Your task to perform on an android device: Show me popular videos on Youtube Image 0: 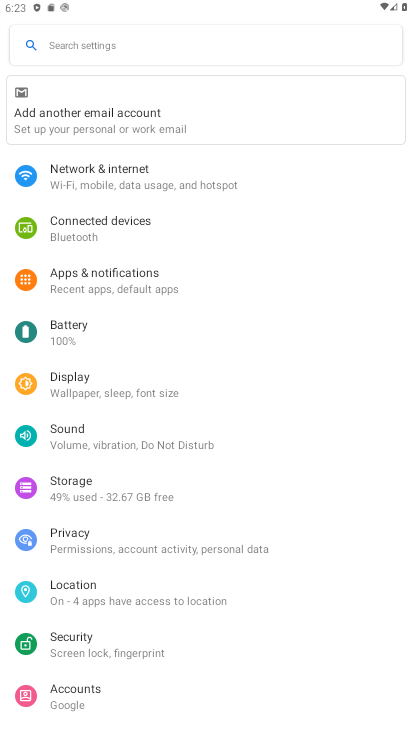
Step 0: press home button
Your task to perform on an android device: Show me popular videos on Youtube Image 1: 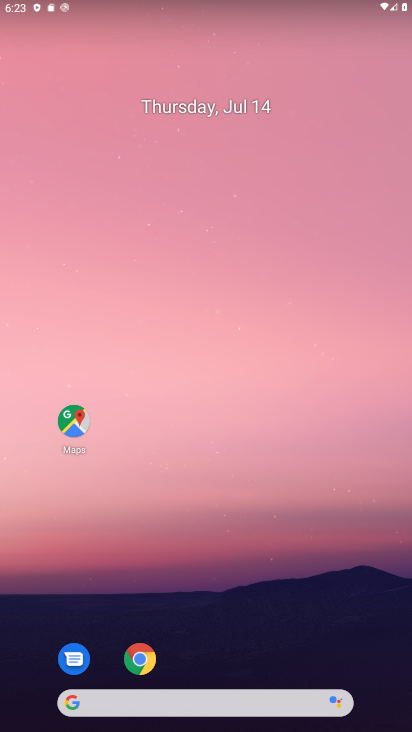
Step 1: drag from (153, 606) to (298, 2)
Your task to perform on an android device: Show me popular videos on Youtube Image 2: 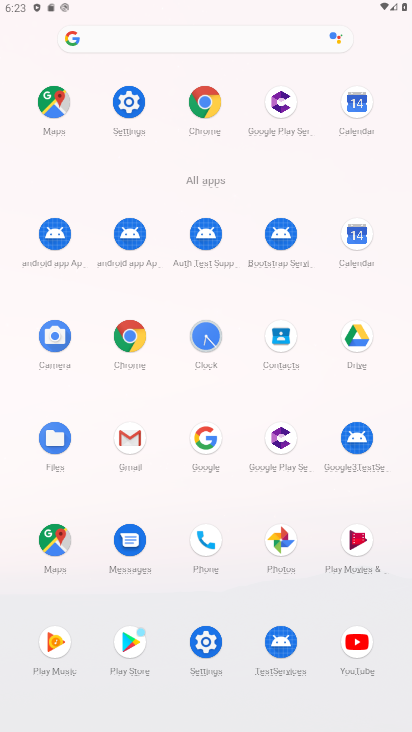
Step 2: click (362, 639)
Your task to perform on an android device: Show me popular videos on Youtube Image 3: 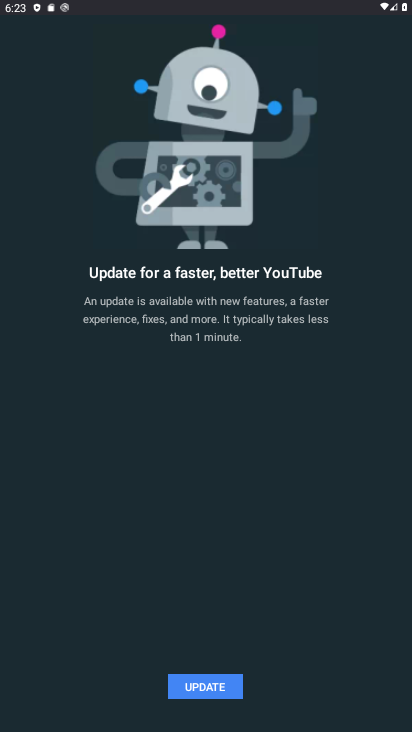
Step 3: click (222, 685)
Your task to perform on an android device: Show me popular videos on Youtube Image 4: 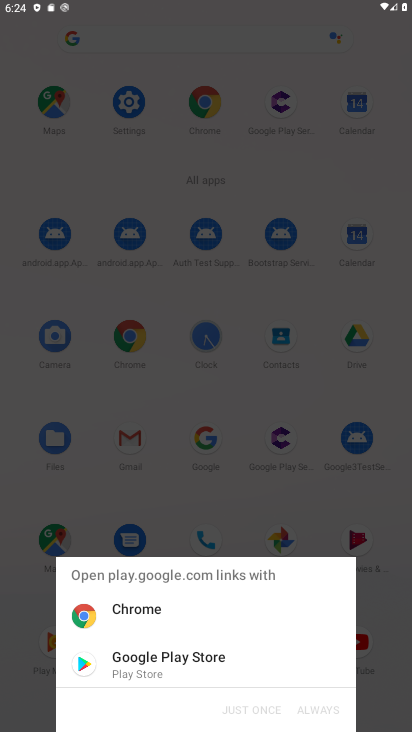
Step 4: click (189, 670)
Your task to perform on an android device: Show me popular videos on Youtube Image 5: 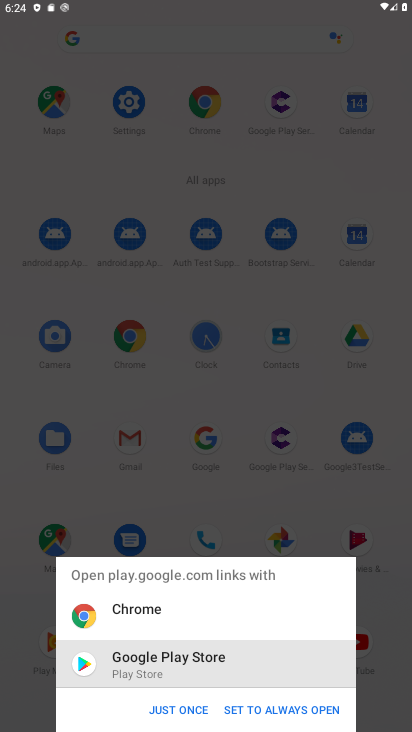
Step 5: click (196, 707)
Your task to perform on an android device: Show me popular videos on Youtube Image 6: 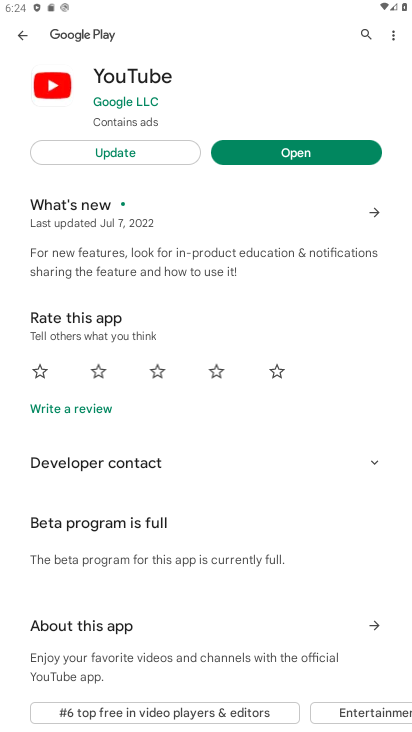
Step 6: click (112, 146)
Your task to perform on an android device: Show me popular videos on Youtube Image 7: 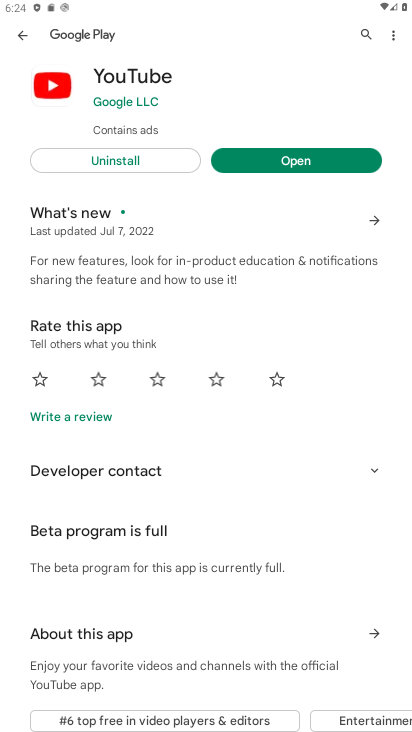
Step 7: click (320, 156)
Your task to perform on an android device: Show me popular videos on Youtube Image 8: 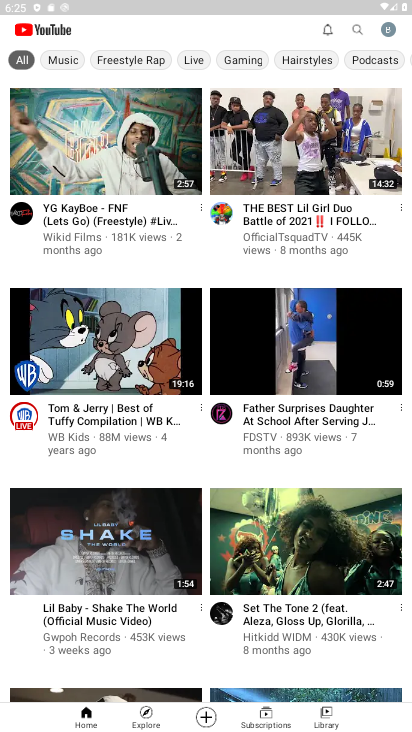
Step 8: task complete